Your task to perform on an android device: Open Yahoo.com Image 0: 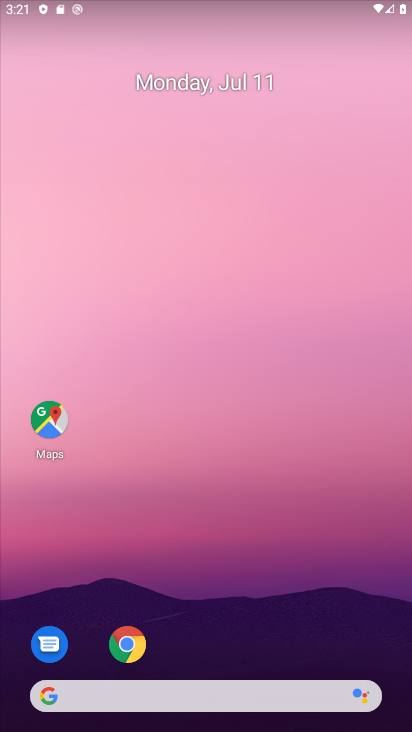
Step 0: drag from (248, 614) to (268, 240)
Your task to perform on an android device: Open Yahoo.com Image 1: 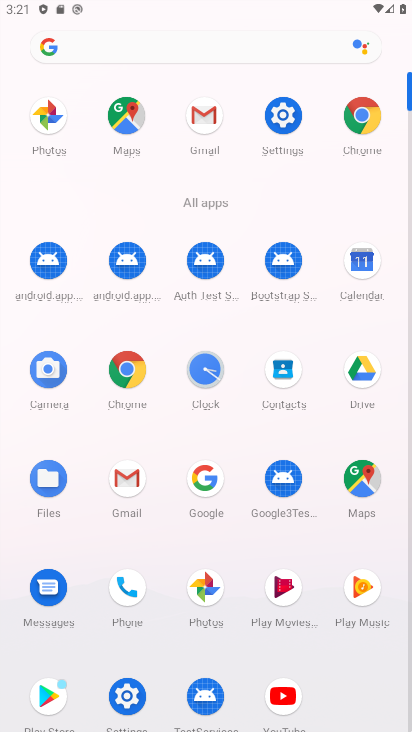
Step 1: click (354, 106)
Your task to perform on an android device: Open Yahoo.com Image 2: 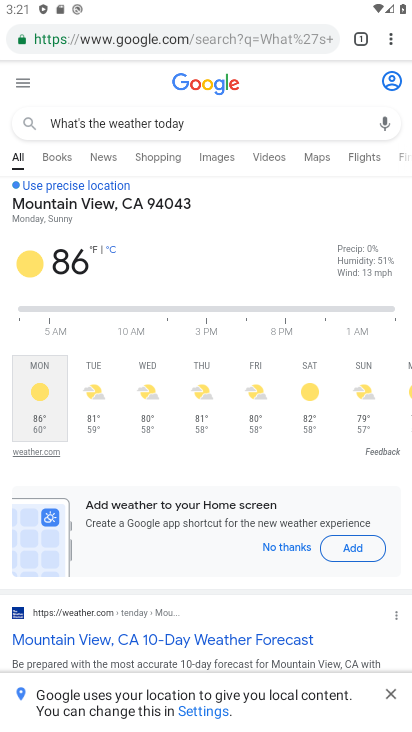
Step 2: click (394, 36)
Your task to perform on an android device: Open Yahoo.com Image 3: 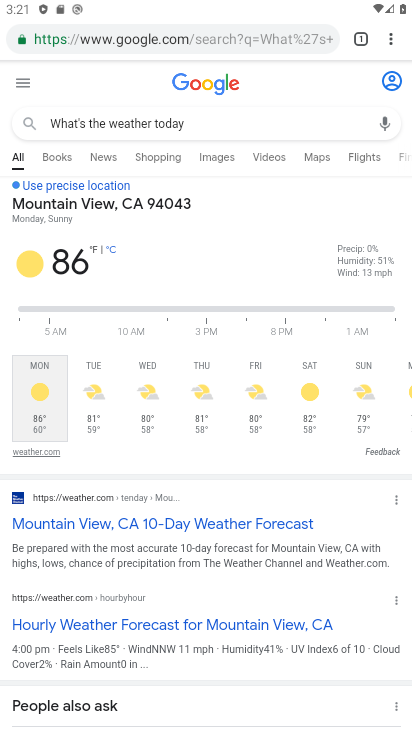
Step 3: click (395, 31)
Your task to perform on an android device: Open Yahoo.com Image 4: 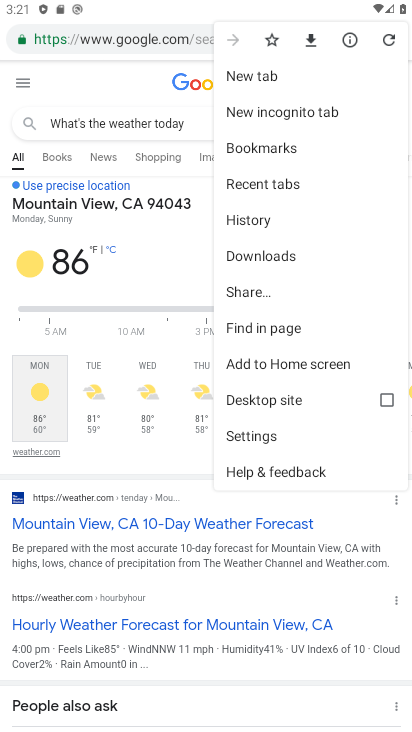
Step 4: click (269, 72)
Your task to perform on an android device: Open Yahoo.com Image 5: 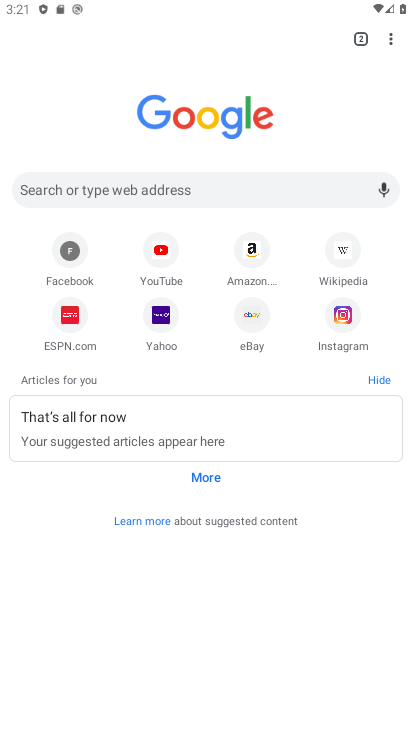
Step 5: click (160, 319)
Your task to perform on an android device: Open Yahoo.com Image 6: 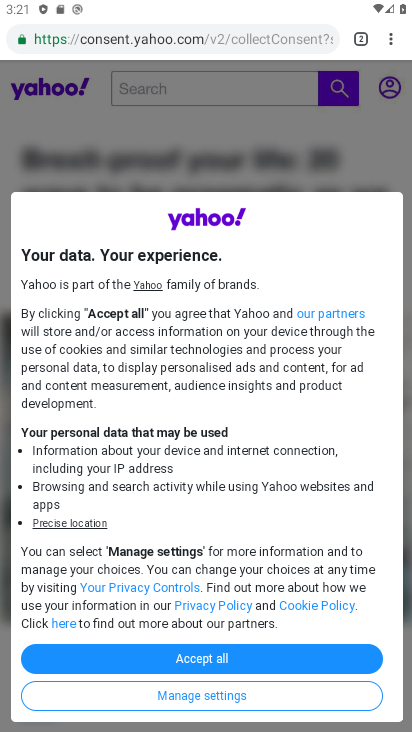
Step 6: task complete